Your task to perform on an android device: Open CNN.com Image 0: 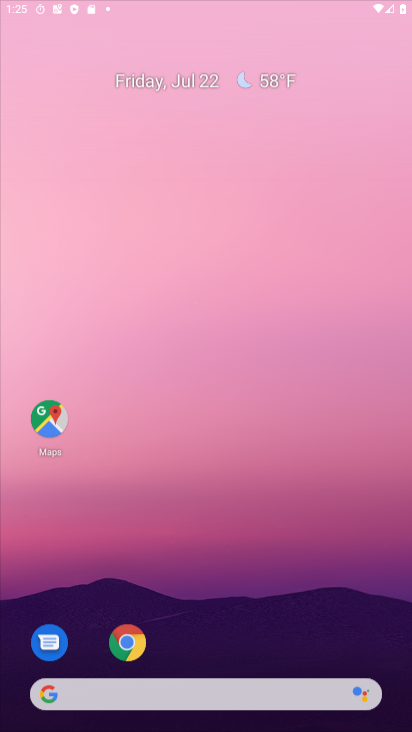
Step 0: click (261, 235)
Your task to perform on an android device: Open CNN.com Image 1: 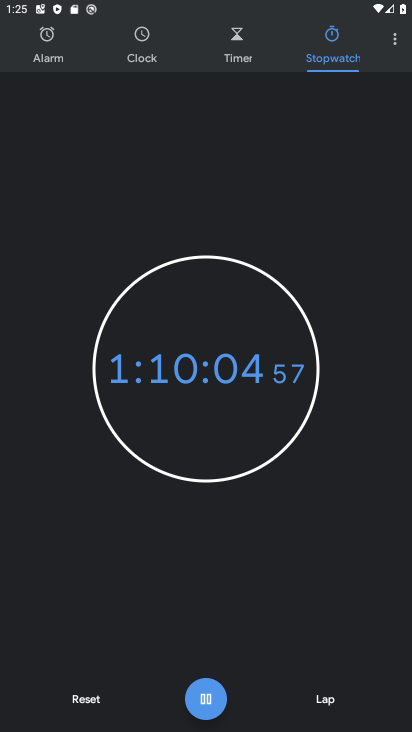
Step 1: click (72, 707)
Your task to perform on an android device: Open CNN.com Image 2: 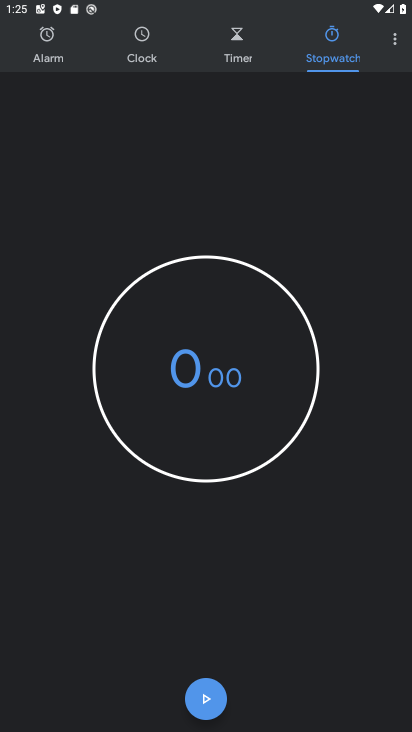
Step 2: drag from (186, 448) to (216, 330)
Your task to perform on an android device: Open CNN.com Image 3: 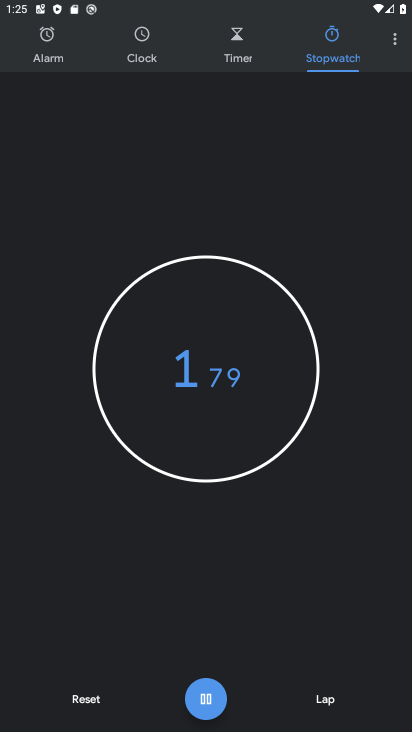
Step 3: press home button
Your task to perform on an android device: Open CNN.com Image 4: 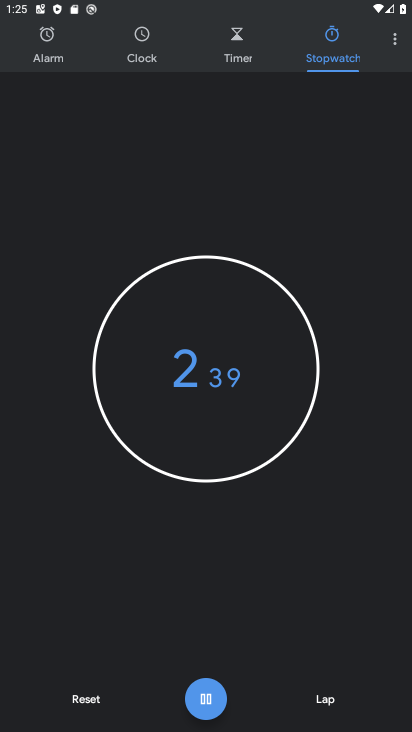
Step 4: drag from (224, 574) to (273, 103)
Your task to perform on an android device: Open CNN.com Image 5: 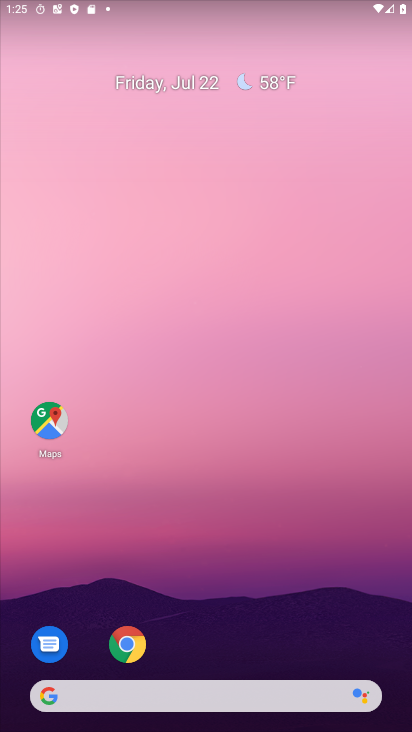
Step 5: drag from (199, 619) to (291, 84)
Your task to perform on an android device: Open CNN.com Image 6: 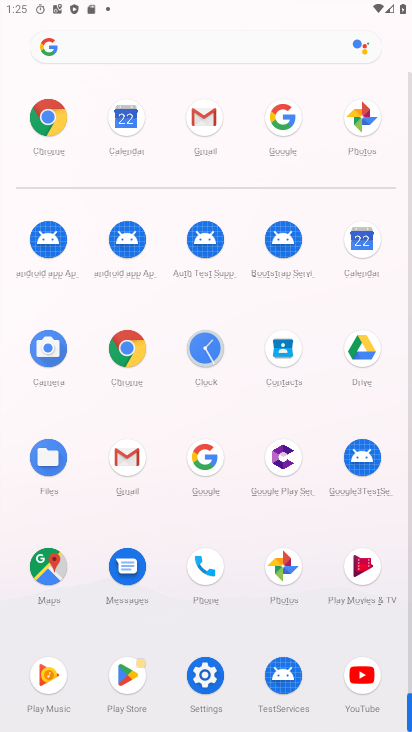
Step 6: click (121, 41)
Your task to perform on an android device: Open CNN.com Image 7: 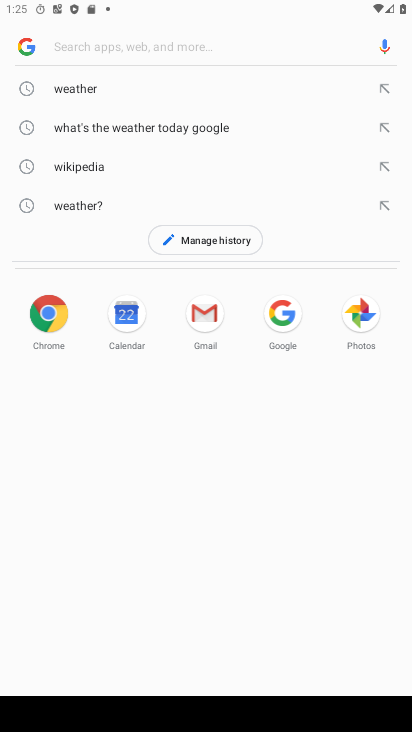
Step 7: click (121, 49)
Your task to perform on an android device: Open CNN.com Image 8: 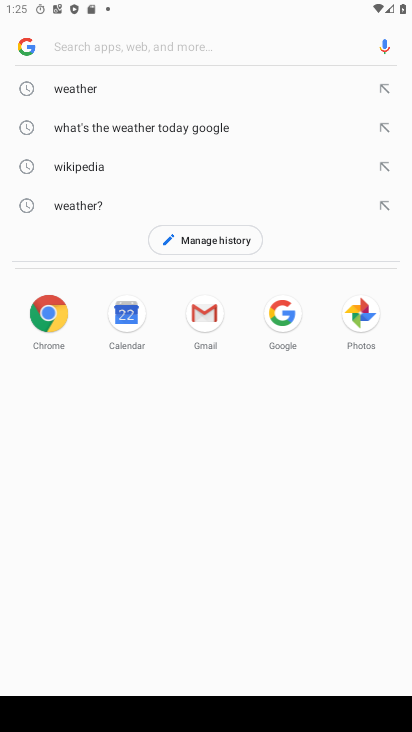
Step 8: type " CNN.com"
Your task to perform on an android device: Open CNN.com Image 9: 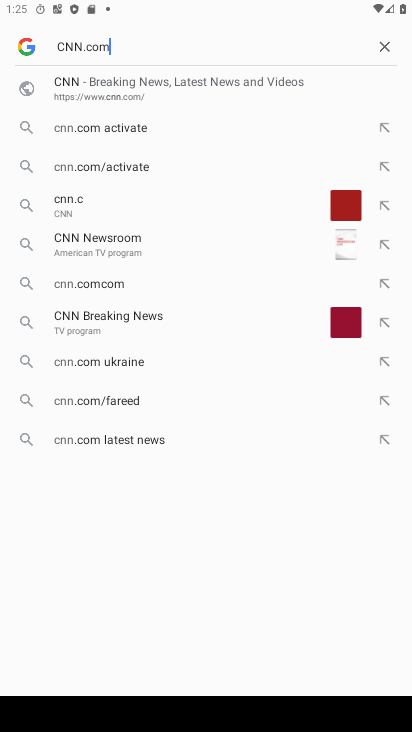
Step 9: type ""
Your task to perform on an android device: Open CNN.com Image 10: 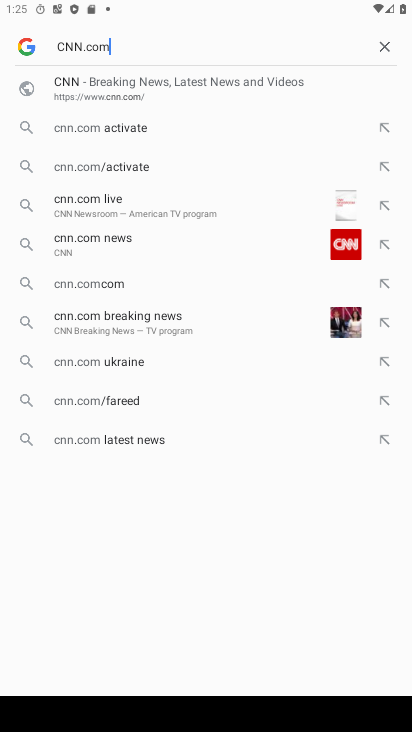
Step 10: click (93, 98)
Your task to perform on an android device: Open CNN.com Image 11: 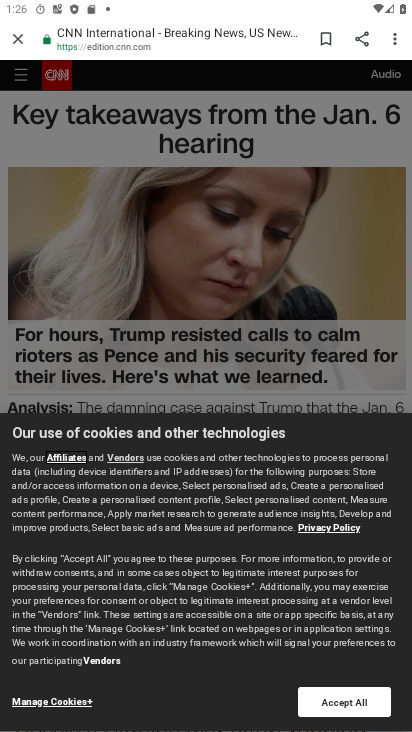
Step 11: task complete